Your task to perform on an android device: Open Google Maps and go to "Timeline" Image 0: 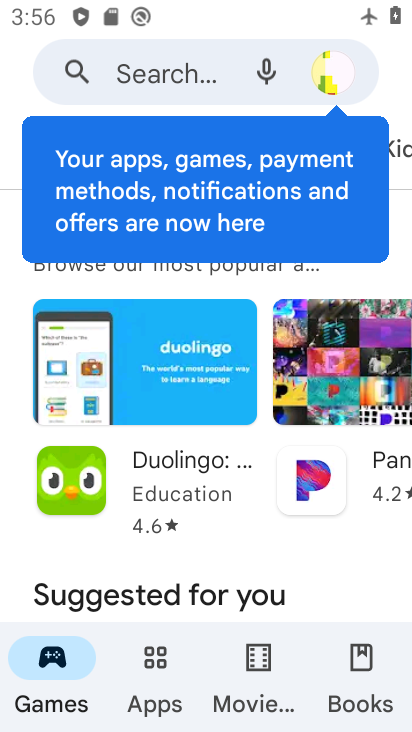
Step 0: press home button
Your task to perform on an android device: Open Google Maps and go to "Timeline" Image 1: 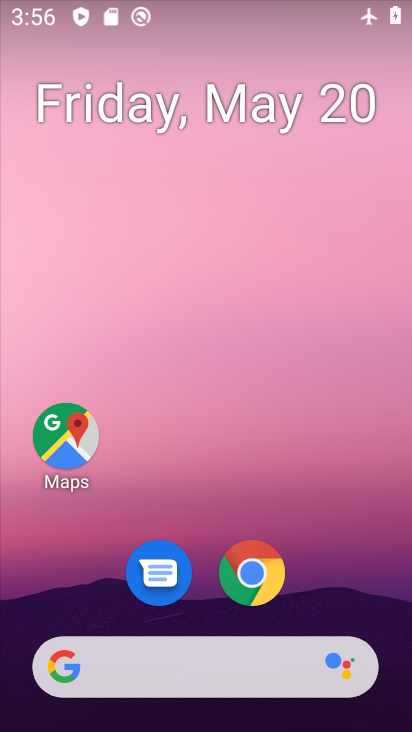
Step 1: click (69, 411)
Your task to perform on an android device: Open Google Maps and go to "Timeline" Image 2: 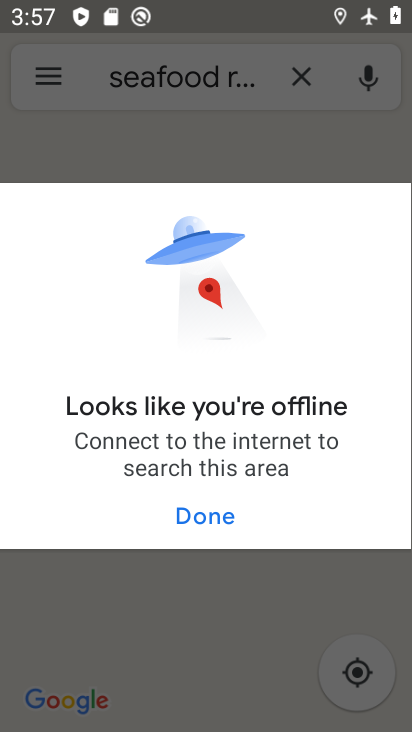
Step 2: click (222, 525)
Your task to perform on an android device: Open Google Maps and go to "Timeline" Image 3: 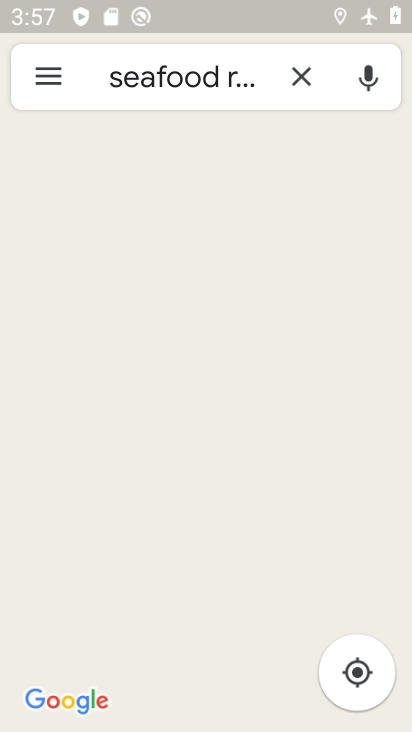
Step 3: click (46, 81)
Your task to perform on an android device: Open Google Maps and go to "Timeline" Image 4: 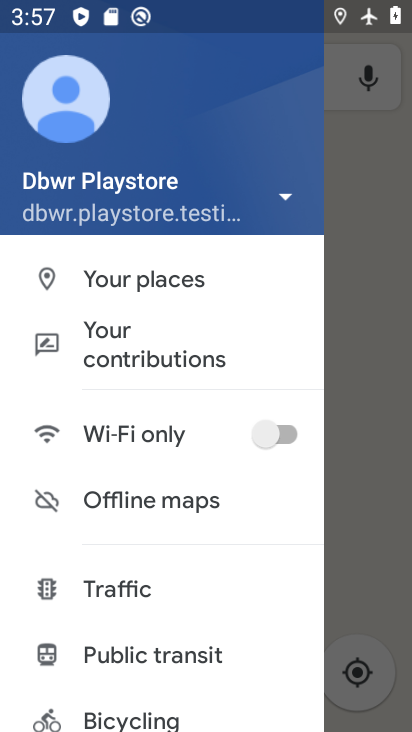
Step 4: task complete